Your task to perform on an android device: What's on my calendar today? Image 0: 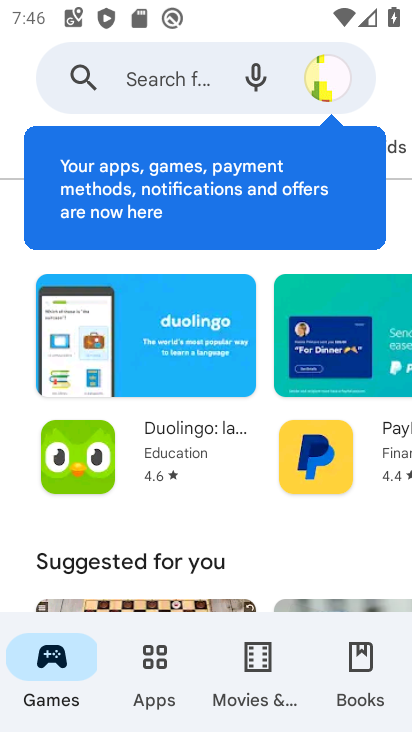
Step 0: press home button
Your task to perform on an android device: What's on my calendar today? Image 1: 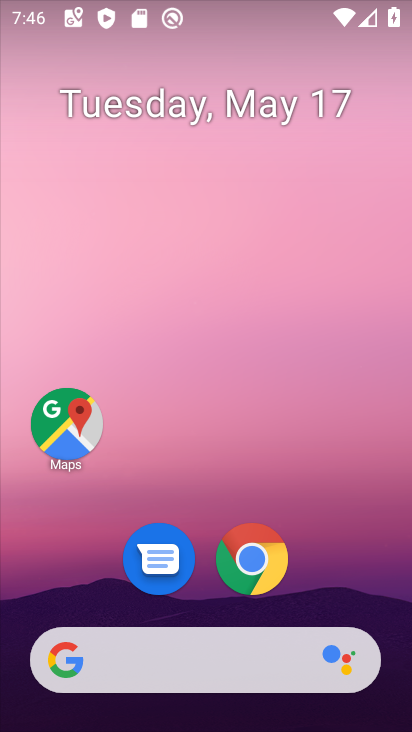
Step 1: drag from (218, 652) to (310, 87)
Your task to perform on an android device: What's on my calendar today? Image 2: 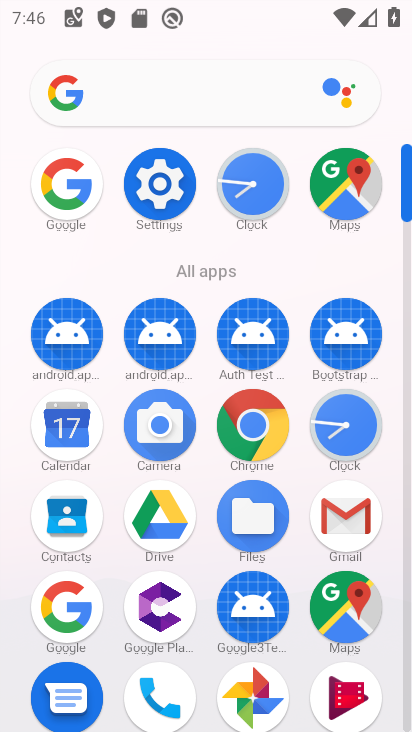
Step 2: click (53, 440)
Your task to perform on an android device: What's on my calendar today? Image 3: 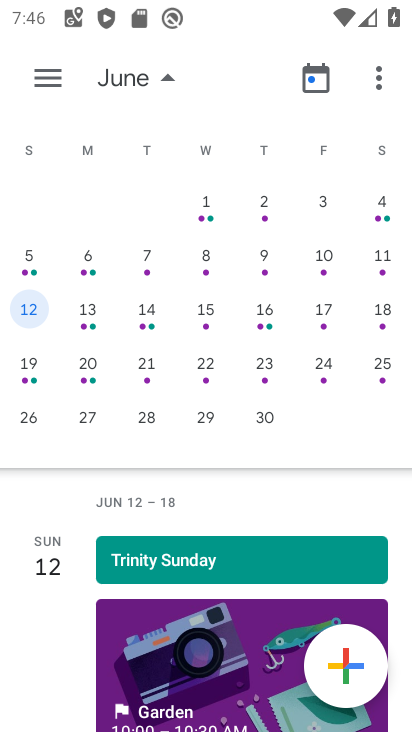
Step 3: drag from (39, 301) to (387, 363)
Your task to perform on an android device: What's on my calendar today? Image 4: 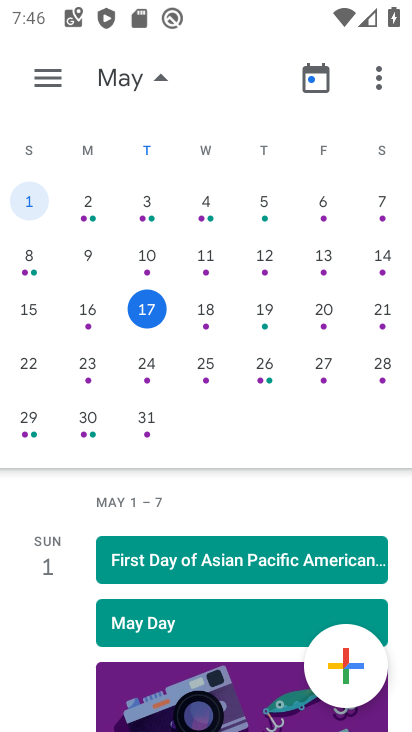
Step 4: click (152, 322)
Your task to perform on an android device: What's on my calendar today? Image 5: 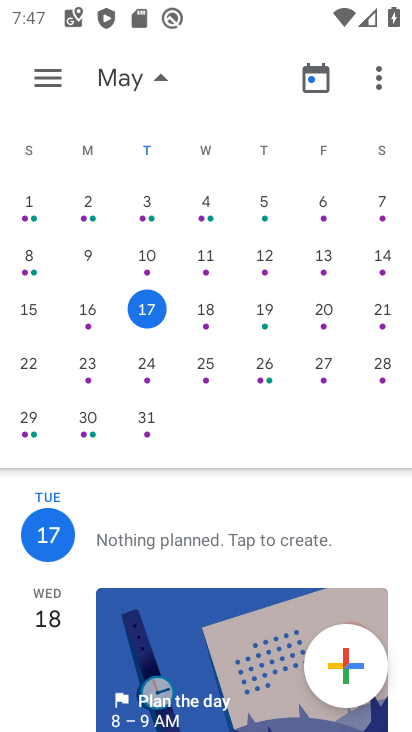
Step 5: task complete